Your task to perform on an android device: Toggle the flashlight Image 0: 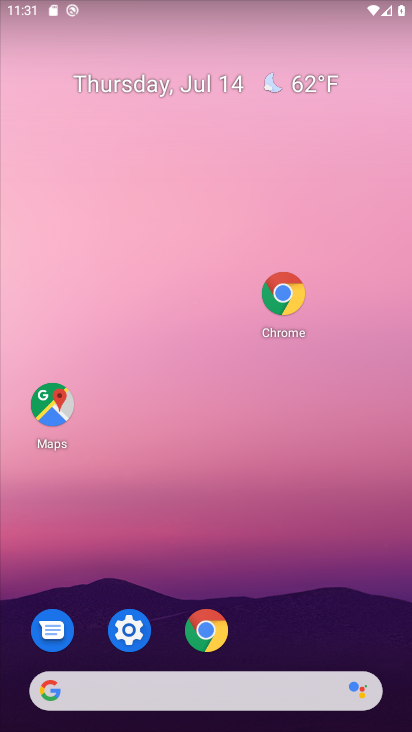
Step 0: drag from (277, 697) to (263, 168)
Your task to perform on an android device: Toggle the flashlight Image 1: 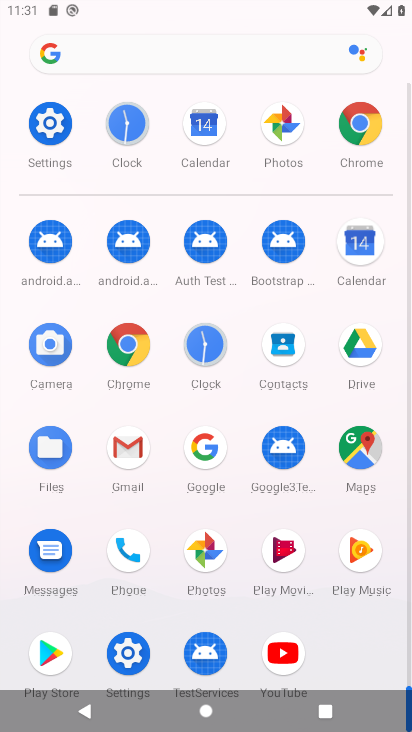
Step 1: task complete